Your task to perform on an android device: Open calendar and show me the third week of next month Image 0: 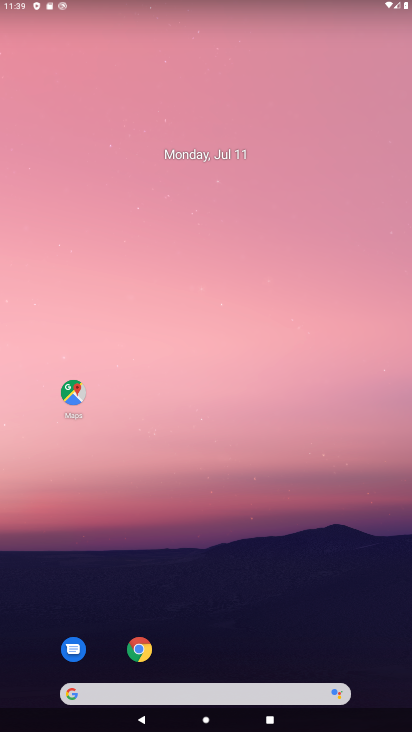
Step 0: press home button
Your task to perform on an android device: Open calendar and show me the third week of next month Image 1: 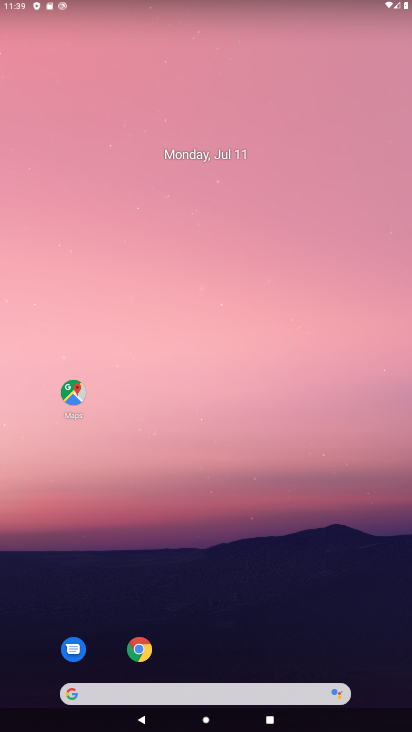
Step 1: press home button
Your task to perform on an android device: Open calendar and show me the third week of next month Image 2: 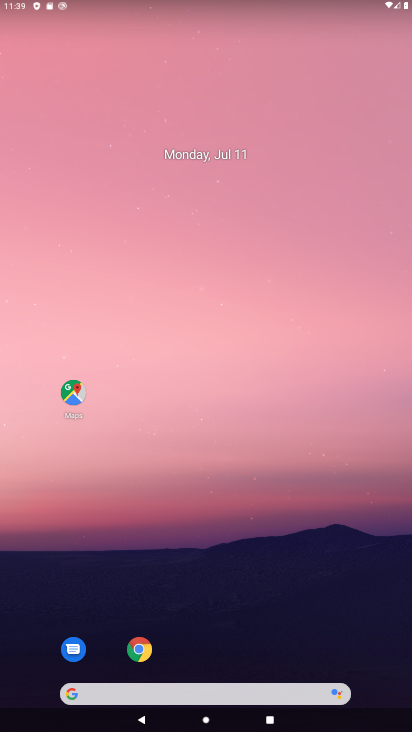
Step 2: drag from (315, 649) to (295, 286)
Your task to perform on an android device: Open calendar and show me the third week of next month Image 3: 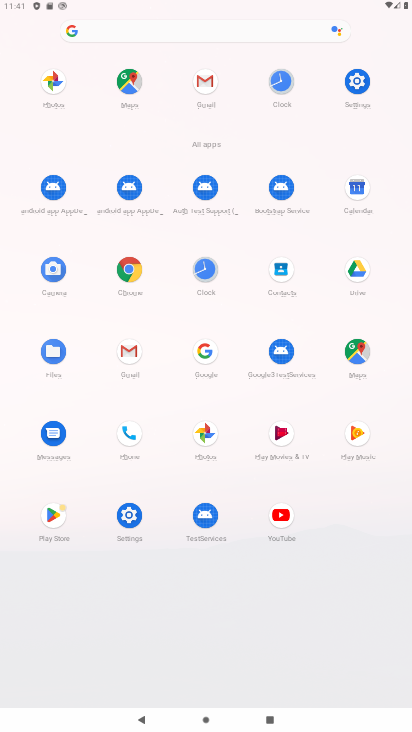
Step 3: click (366, 183)
Your task to perform on an android device: Open calendar and show me the third week of next month Image 4: 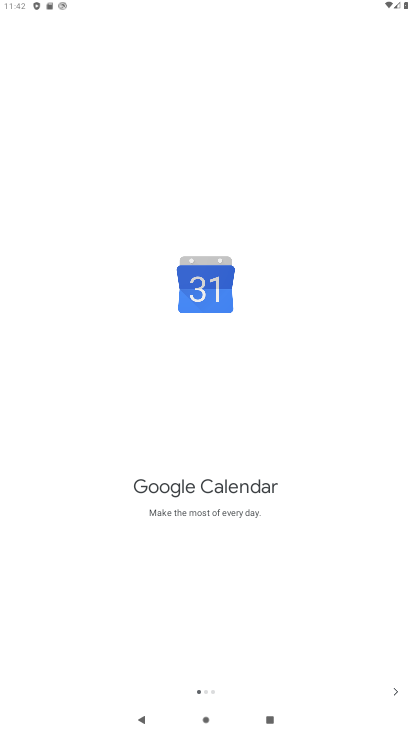
Step 4: click (390, 695)
Your task to perform on an android device: Open calendar and show me the third week of next month Image 5: 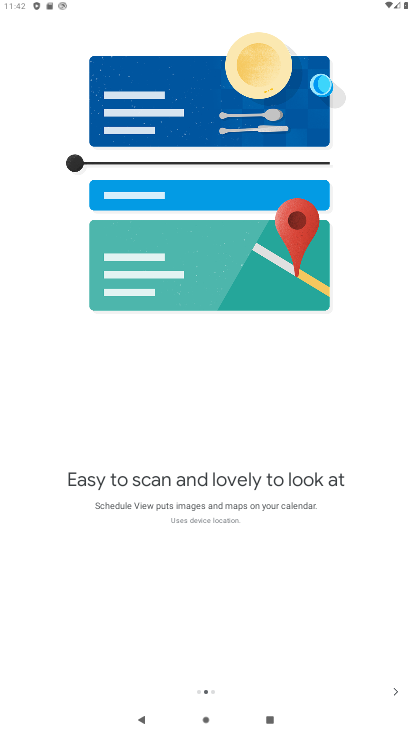
Step 5: click (393, 683)
Your task to perform on an android device: Open calendar and show me the third week of next month Image 6: 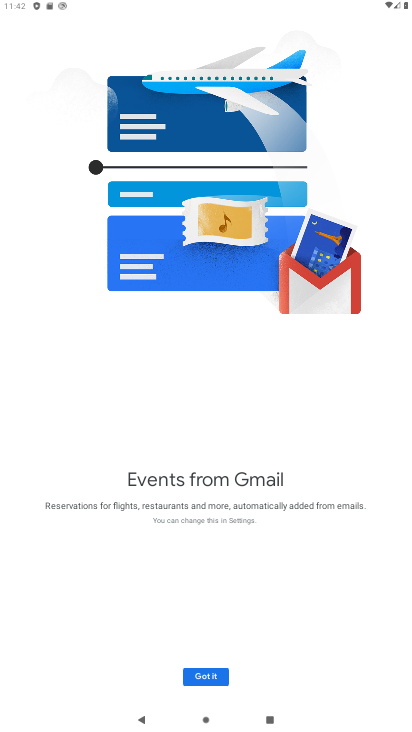
Step 6: click (393, 683)
Your task to perform on an android device: Open calendar and show me the third week of next month Image 7: 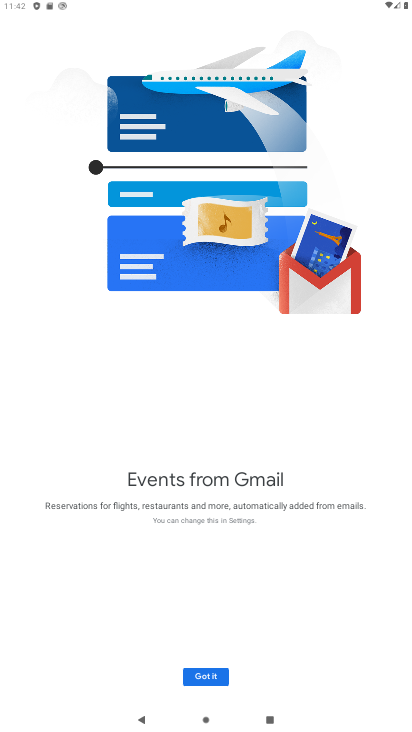
Step 7: click (209, 668)
Your task to perform on an android device: Open calendar and show me the third week of next month Image 8: 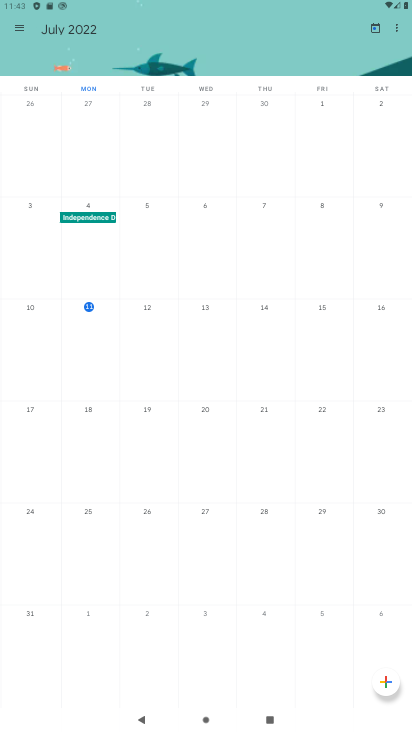
Step 8: drag from (309, 476) to (0, 411)
Your task to perform on an android device: Open calendar and show me the third week of next month Image 9: 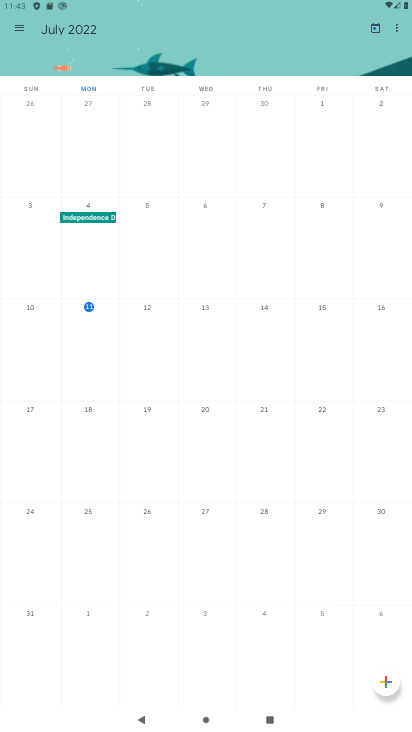
Step 9: drag from (407, 338) to (30, 326)
Your task to perform on an android device: Open calendar and show me the third week of next month Image 10: 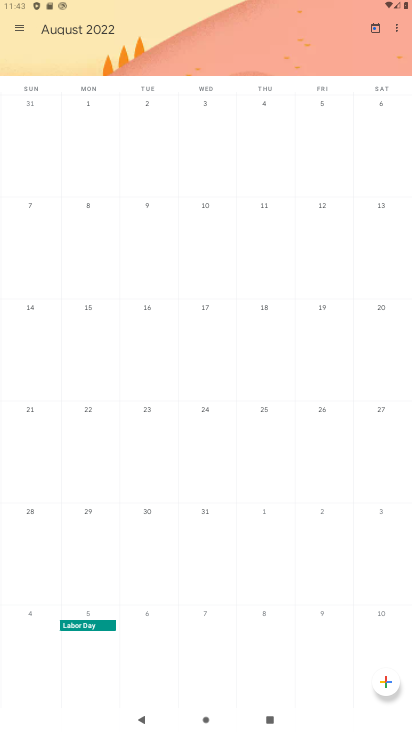
Step 10: click (90, 302)
Your task to perform on an android device: Open calendar and show me the third week of next month Image 11: 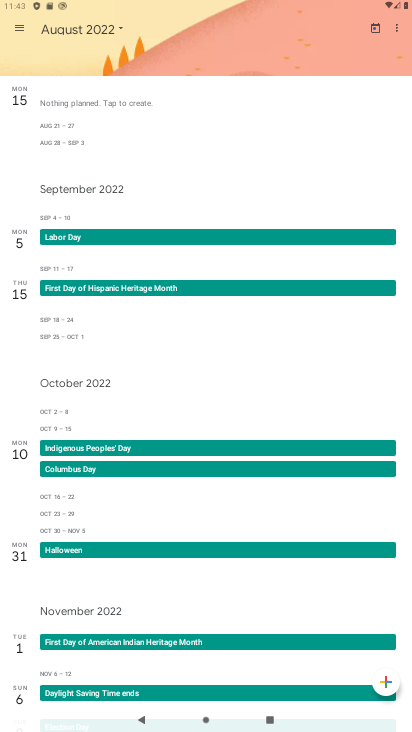
Step 11: task complete